Your task to perform on an android device: Go to Google maps Image 0: 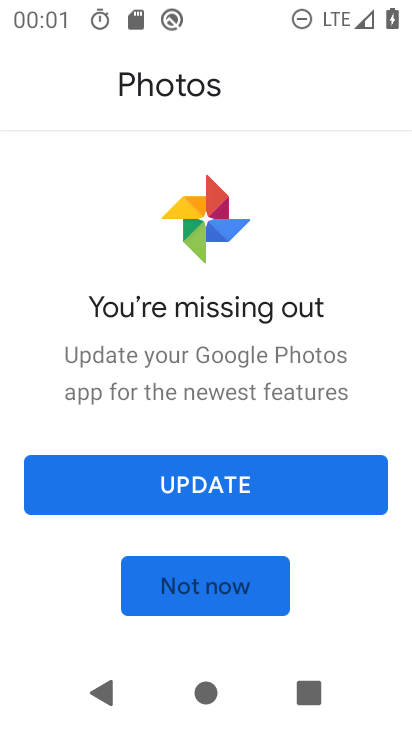
Step 0: press home button
Your task to perform on an android device: Go to Google maps Image 1: 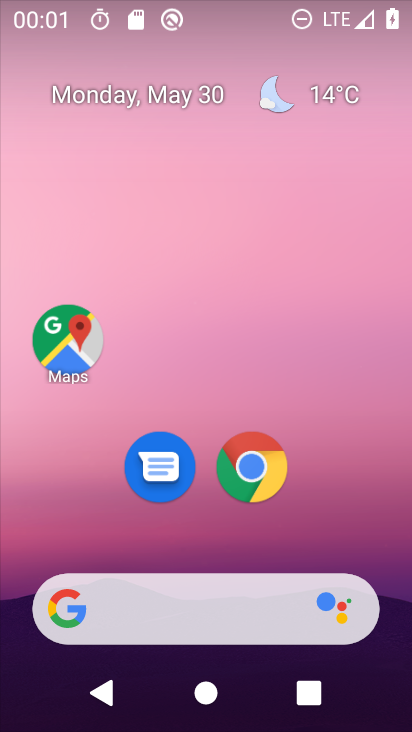
Step 1: click (60, 368)
Your task to perform on an android device: Go to Google maps Image 2: 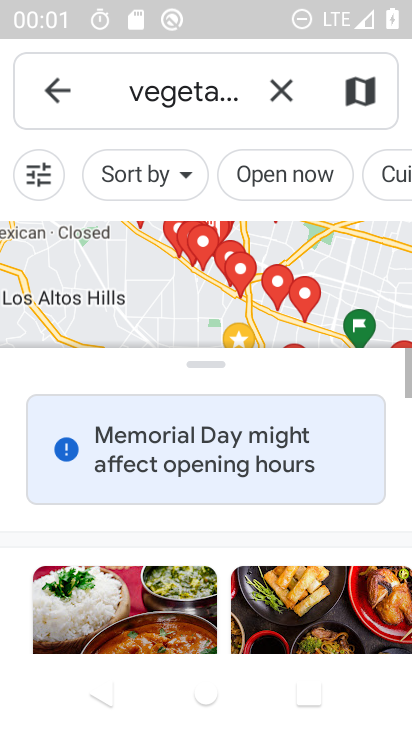
Step 2: click (279, 83)
Your task to perform on an android device: Go to Google maps Image 3: 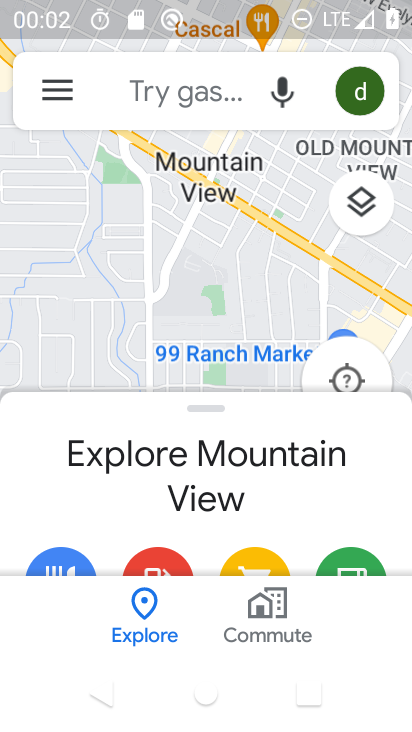
Step 3: task complete